Your task to perform on an android device: Go to notification settings Image 0: 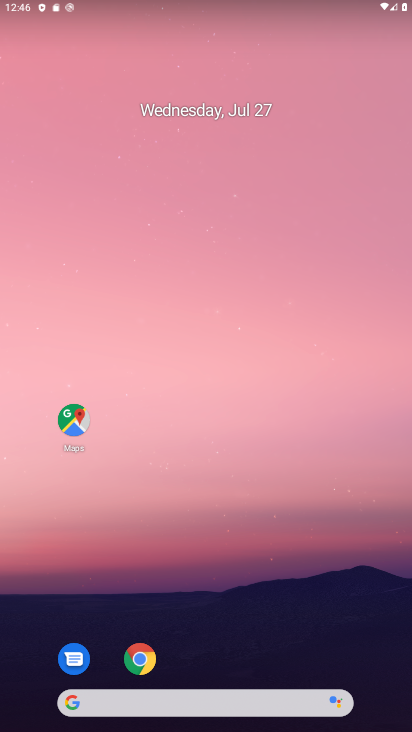
Step 0: drag from (318, 630) to (277, 72)
Your task to perform on an android device: Go to notification settings Image 1: 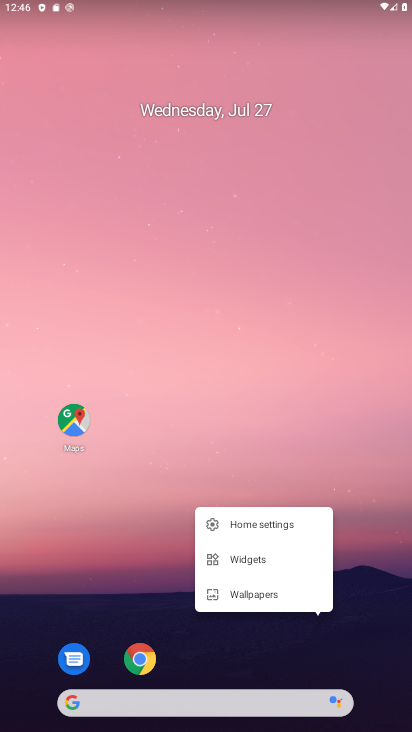
Step 1: click (366, 386)
Your task to perform on an android device: Go to notification settings Image 2: 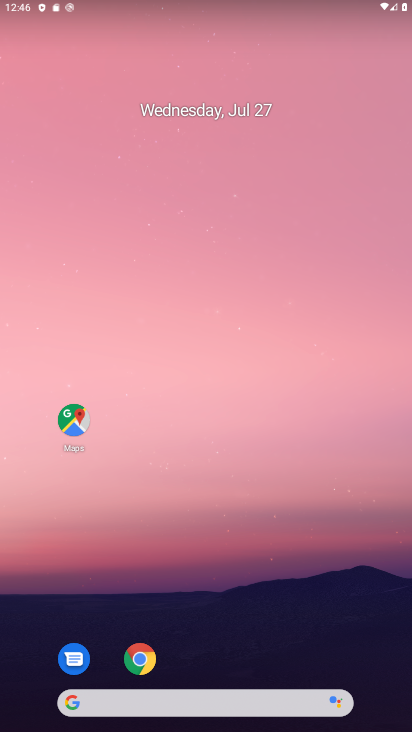
Step 2: drag from (354, 575) to (292, 147)
Your task to perform on an android device: Go to notification settings Image 3: 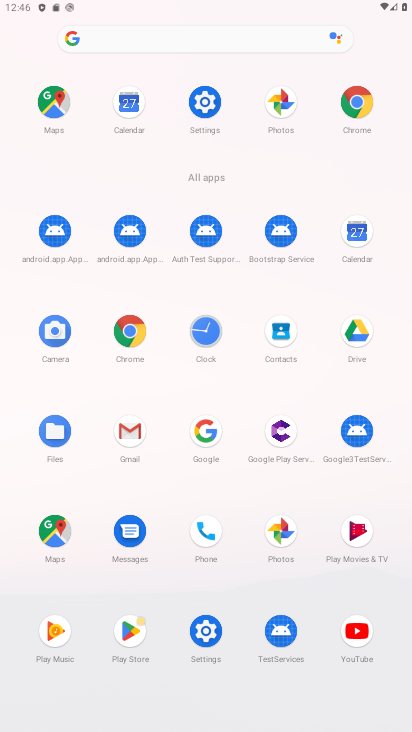
Step 3: click (210, 109)
Your task to perform on an android device: Go to notification settings Image 4: 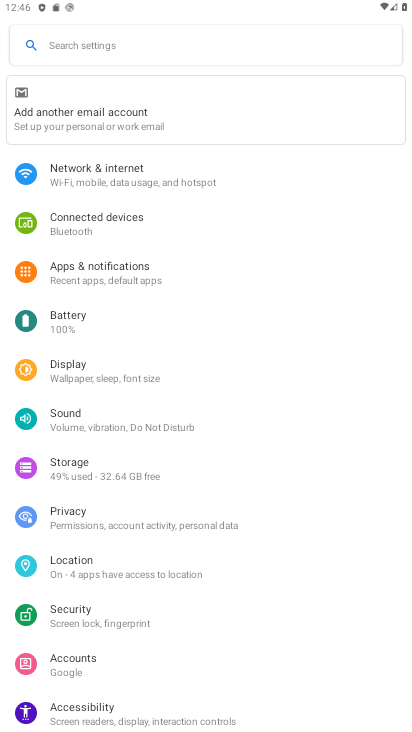
Step 4: click (142, 272)
Your task to perform on an android device: Go to notification settings Image 5: 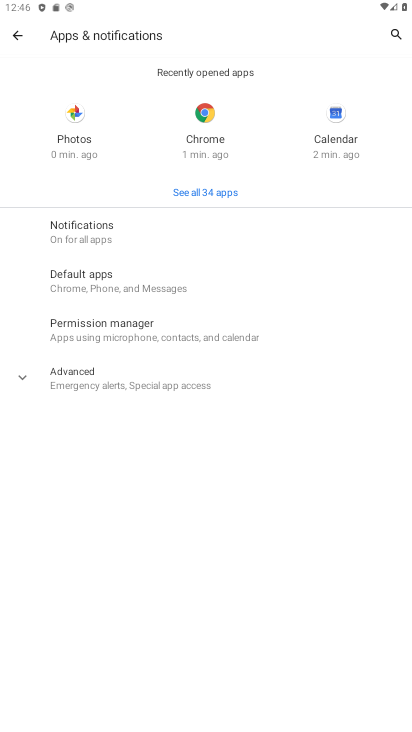
Step 5: click (104, 238)
Your task to perform on an android device: Go to notification settings Image 6: 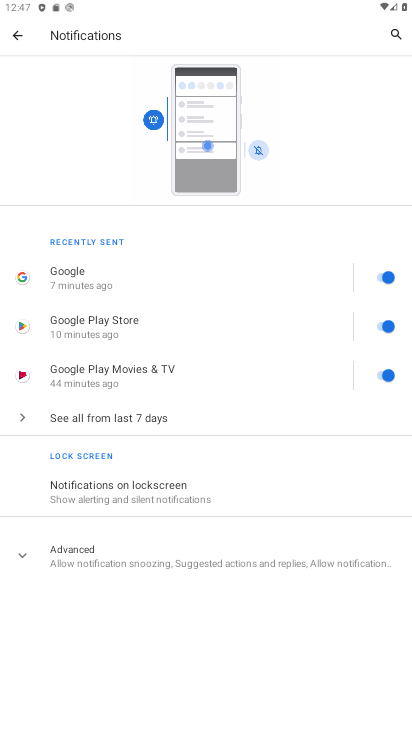
Step 6: task complete